Your task to perform on an android device: make emails show in primary in the gmail app Image 0: 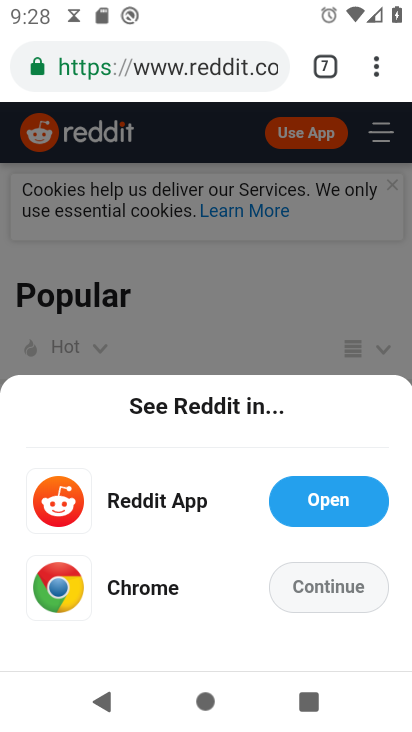
Step 0: press home button
Your task to perform on an android device: make emails show in primary in the gmail app Image 1: 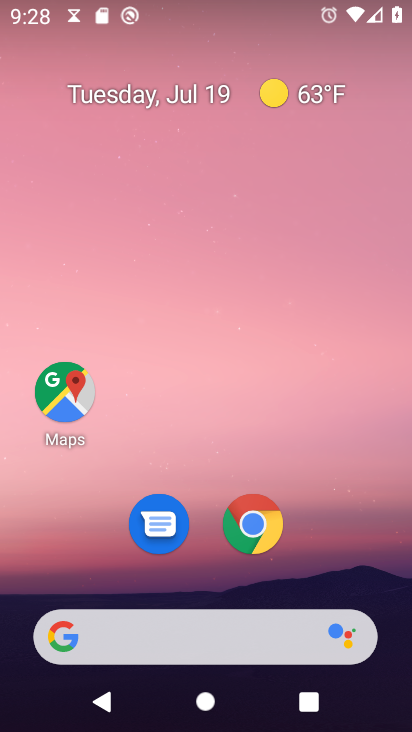
Step 1: drag from (159, 624) to (304, 111)
Your task to perform on an android device: make emails show in primary in the gmail app Image 2: 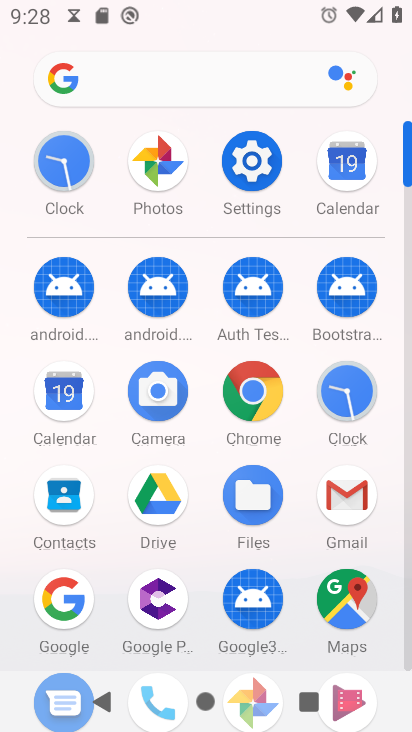
Step 2: click (359, 486)
Your task to perform on an android device: make emails show in primary in the gmail app Image 3: 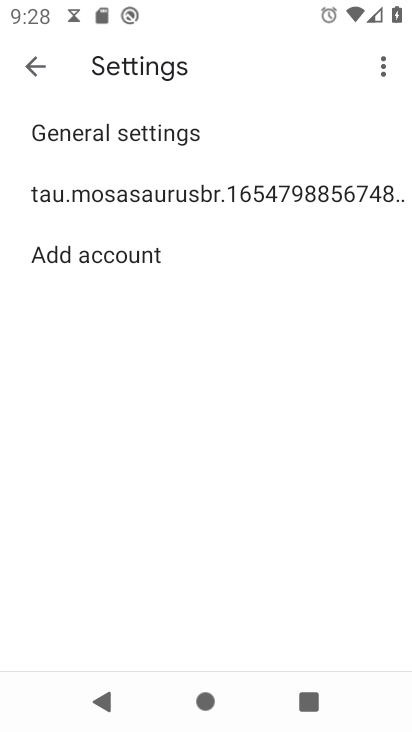
Step 3: click (144, 188)
Your task to perform on an android device: make emails show in primary in the gmail app Image 4: 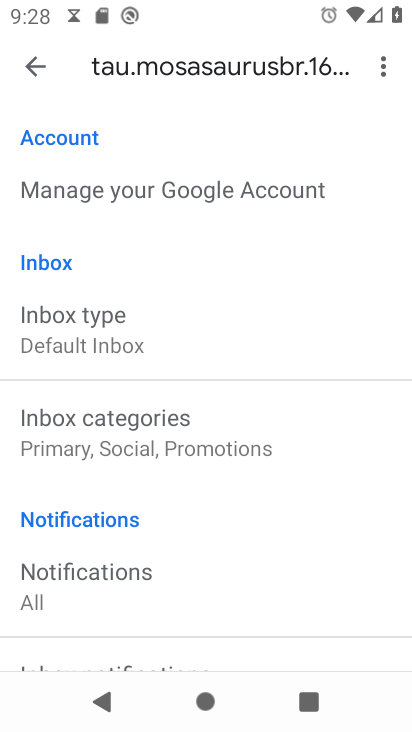
Step 4: click (59, 425)
Your task to perform on an android device: make emails show in primary in the gmail app Image 5: 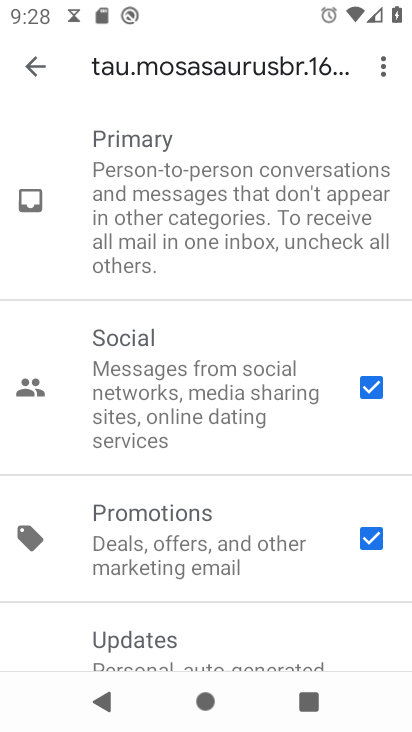
Step 5: click (365, 389)
Your task to perform on an android device: make emails show in primary in the gmail app Image 6: 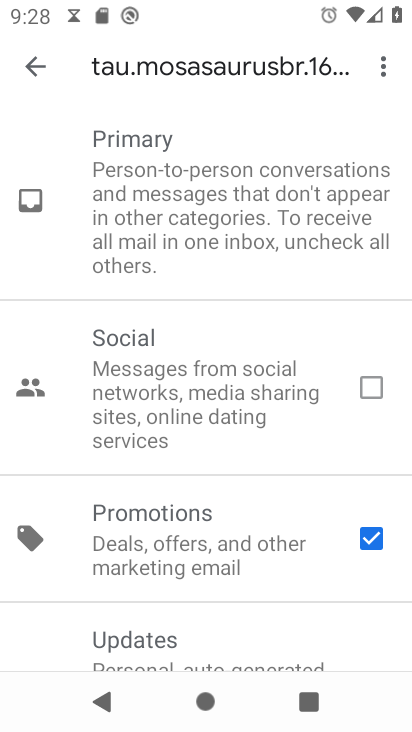
Step 6: click (367, 529)
Your task to perform on an android device: make emails show in primary in the gmail app Image 7: 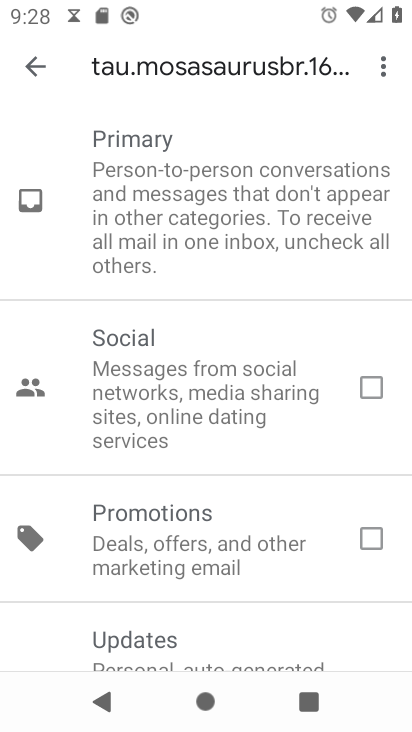
Step 7: click (21, 76)
Your task to perform on an android device: make emails show in primary in the gmail app Image 8: 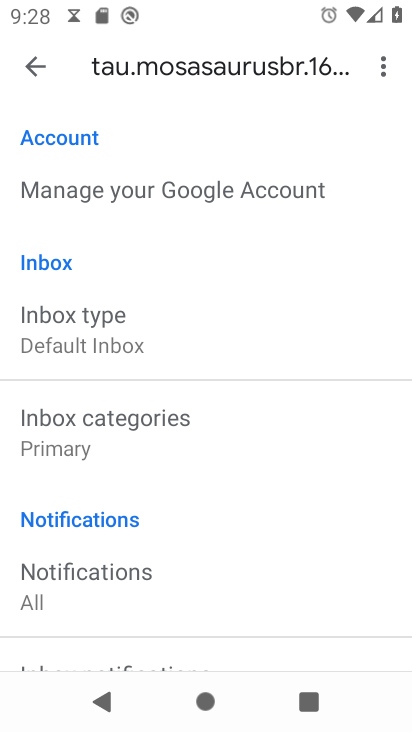
Step 8: task complete